Your task to perform on an android device: Open notification settings Image 0: 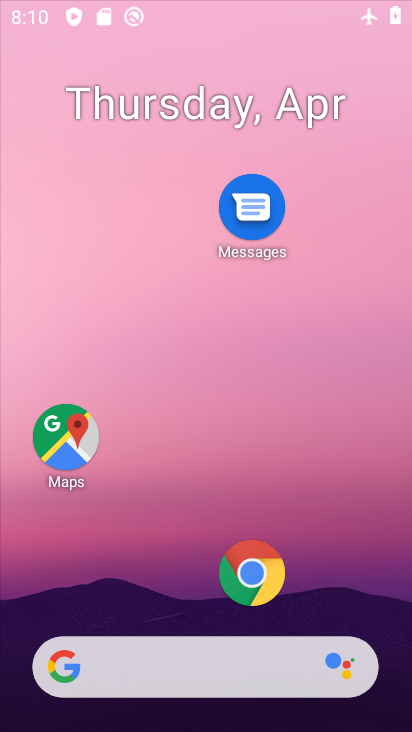
Step 0: click (216, 478)
Your task to perform on an android device: Open notification settings Image 1: 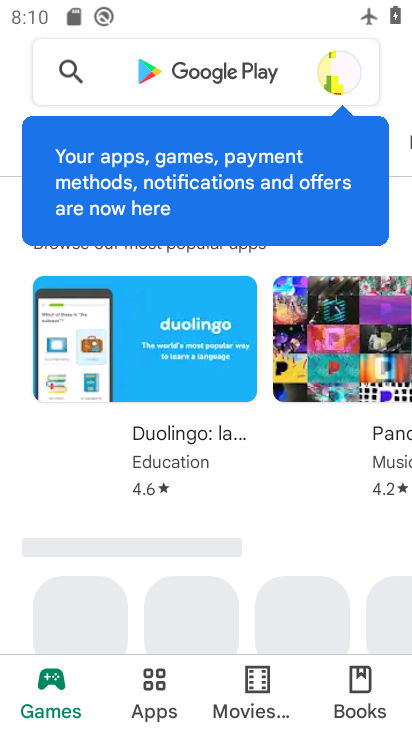
Step 1: press home button
Your task to perform on an android device: Open notification settings Image 2: 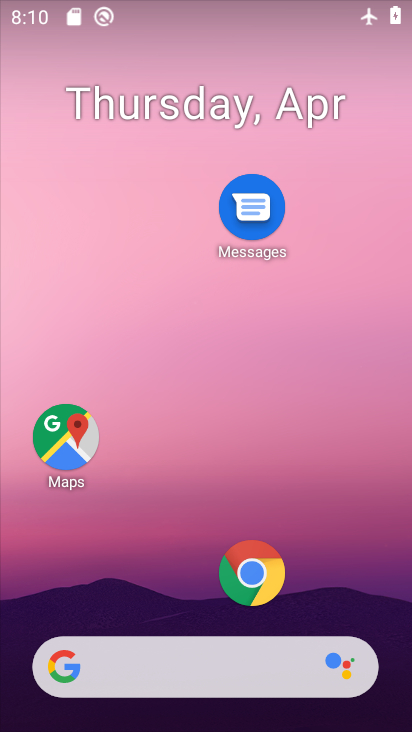
Step 2: drag from (220, 8) to (218, 506)
Your task to perform on an android device: Open notification settings Image 3: 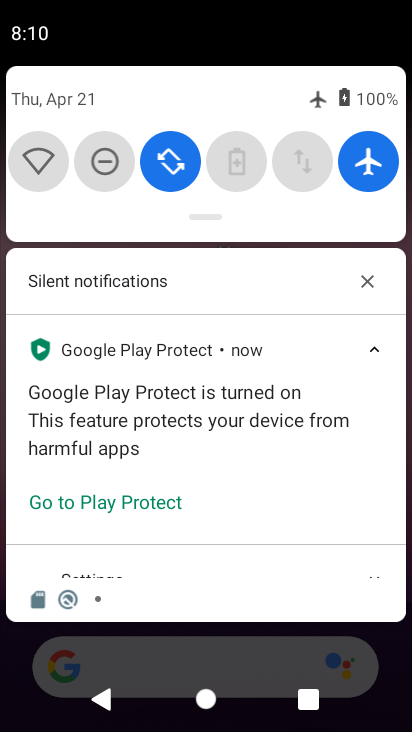
Step 3: drag from (230, 665) to (258, 357)
Your task to perform on an android device: Open notification settings Image 4: 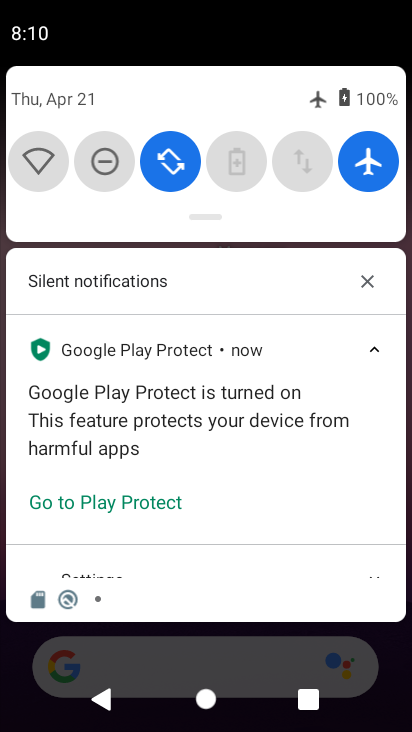
Step 4: press back button
Your task to perform on an android device: Open notification settings Image 5: 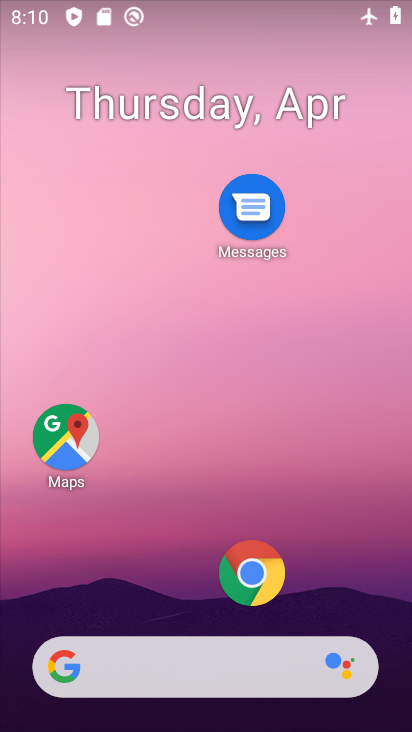
Step 5: drag from (197, 606) to (194, 70)
Your task to perform on an android device: Open notification settings Image 6: 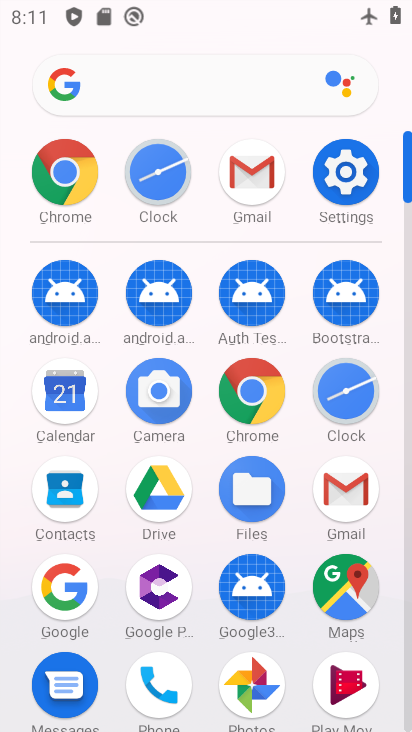
Step 6: click (351, 171)
Your task to perform on an android device: Open notification settings Image 7: 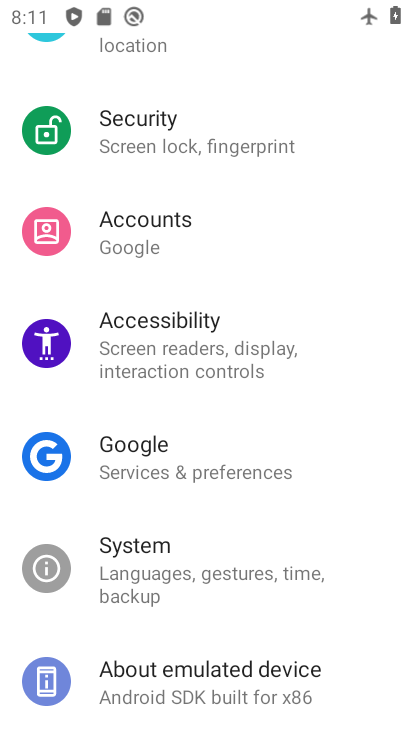
Step 7: drag from (215, 116) to (207, 648)
Your task to perform on an android device: Open notification settings Image 8: 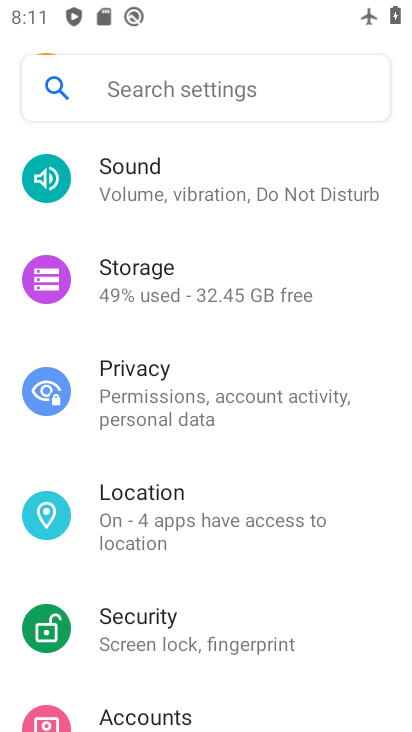
Step 8: drag from (199, 211) to (195, 679)
Your task to perform on an android device: Open notification settings Image 9: 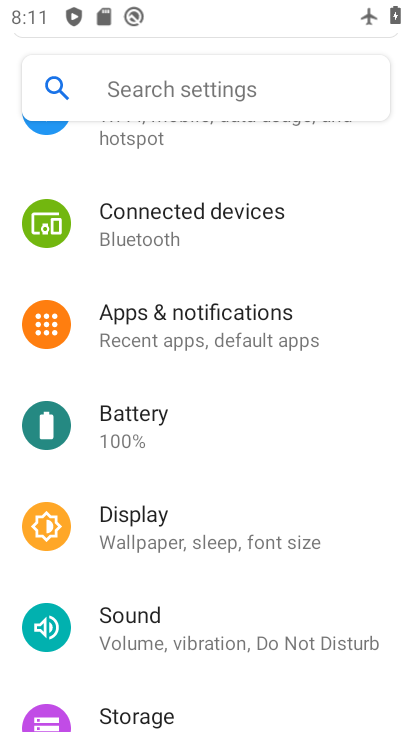
Step 9: click (216, 320)
Your task to perform on an android device: Open notification settings Image 10: 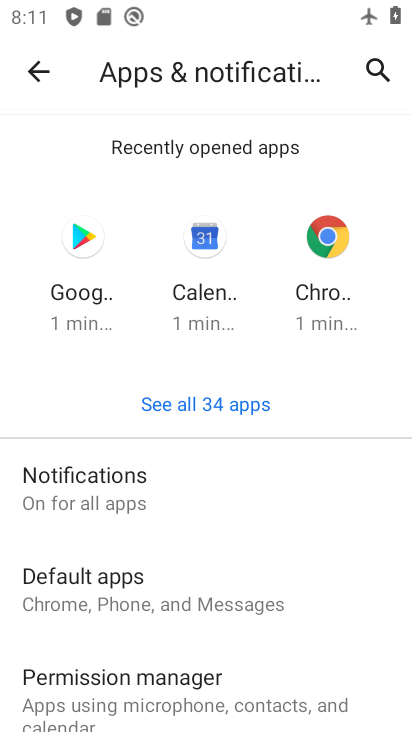
Step 10: click (167, 480)
Your task to perform on an android device: Open notification settings Image 11: 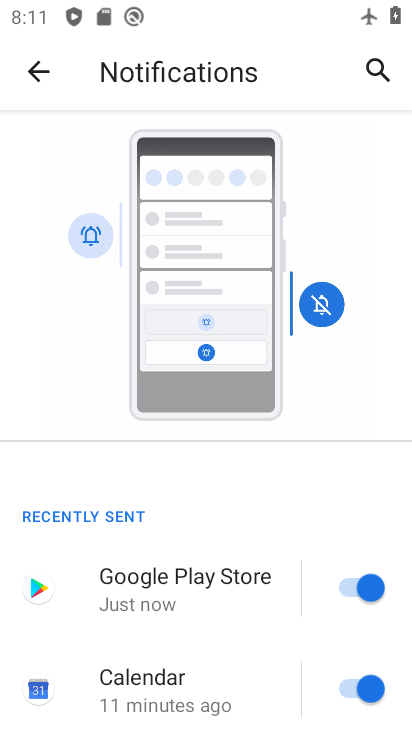
Step 11: click (353, 578)
Your task to perform on an android device: Open notification settings Image 12: 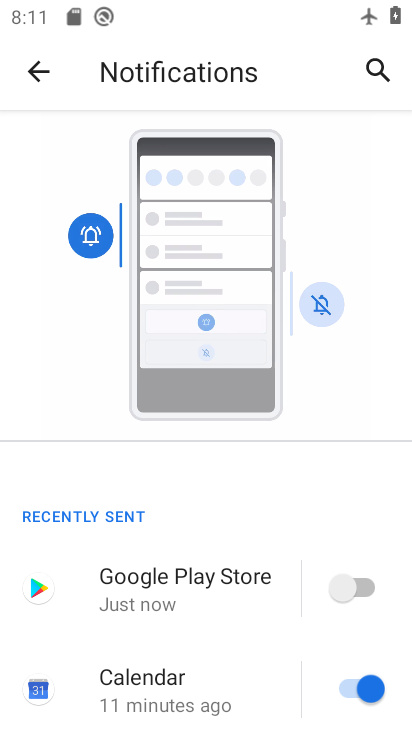
Step 12: click (352, 684)
Your task to perform on an android device: Open notification settings Image 13: 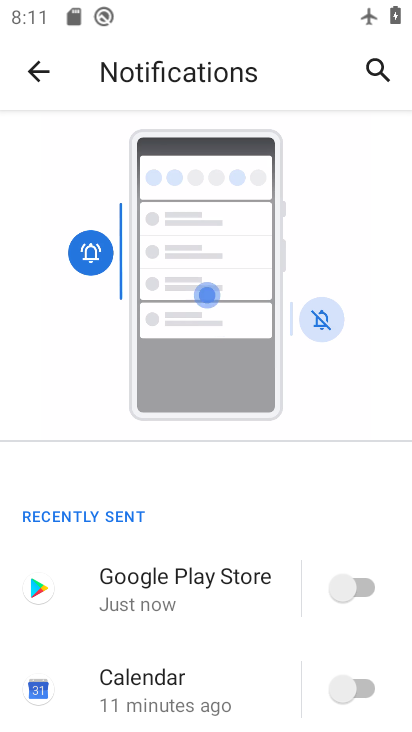
Step 13: drag from (251, 662) to (253, 238)
Your task to perform on an android device: Open notification settings Image 14: 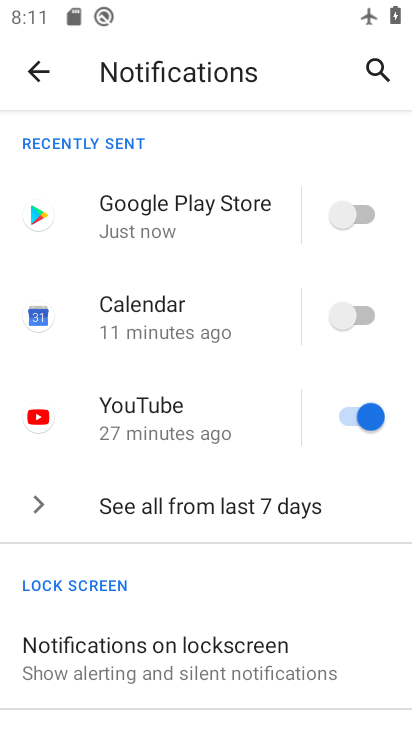
Step 14: click (344, 404)
Your task to perform on an android device: Open notification settings Image 15: 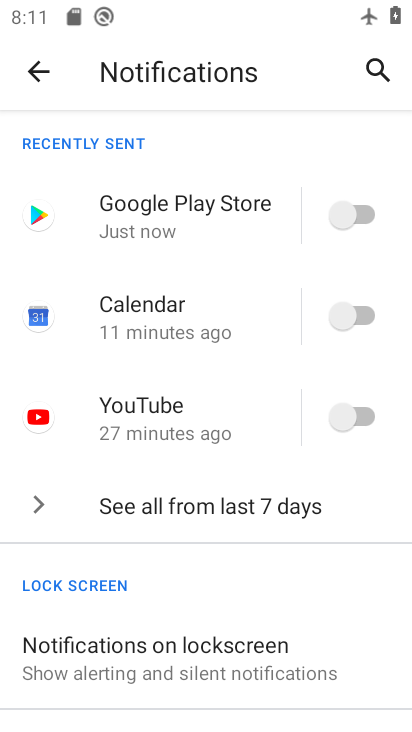
Step 15: click (290, 657)
Your task to perform on an android device: Open notification settings Image 16: 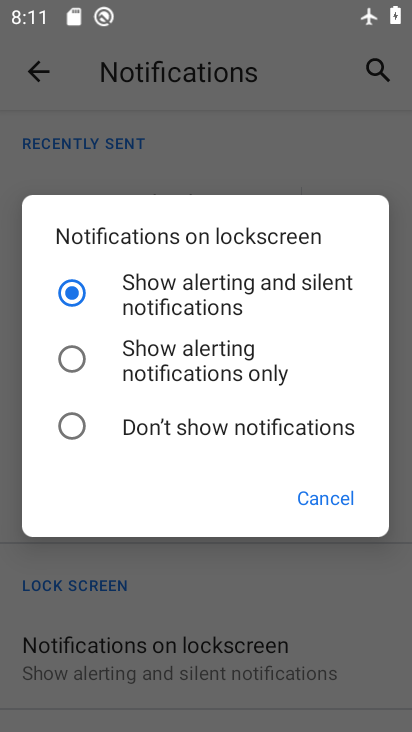
Step 16: click (78, 357)
Your task to perform on an android device: Open notification settings Image 17: 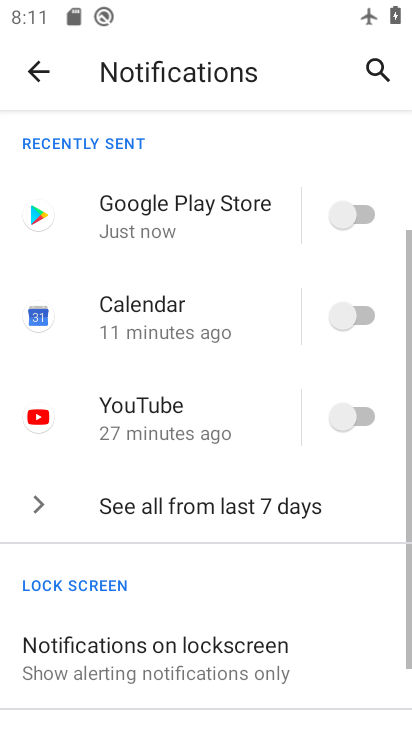
Step 17: drag from (208, 593) to (234, 168)
Your task to perform on an android device: Open notification settings Image 18: 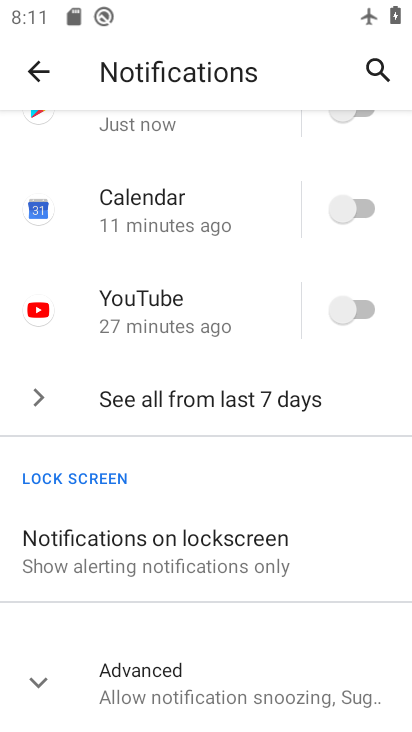
Step 18: click (41, 678)
Your task to perform on an android device: Open notification settings Image 19: 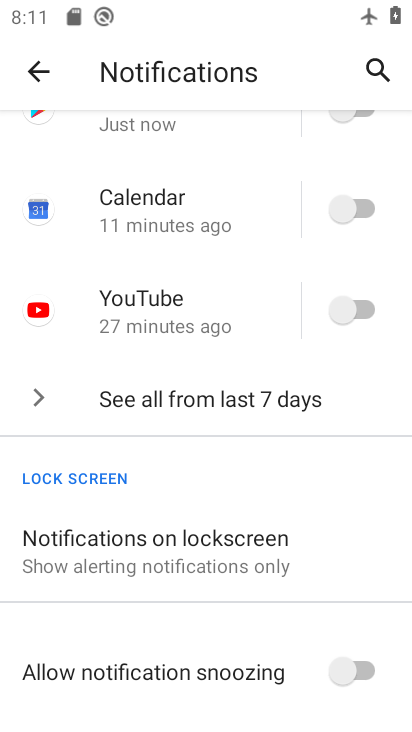
Step 19: drag from (203, 676) to (247, 159)
Your task to perform on an android device: Open notification settings Image 20: 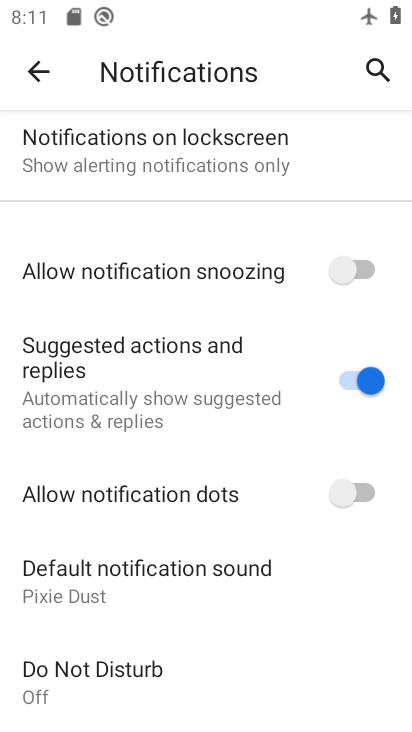
Step 20: click (344, 257)
Your task to perform on an android device: Open notification settings Image 21: 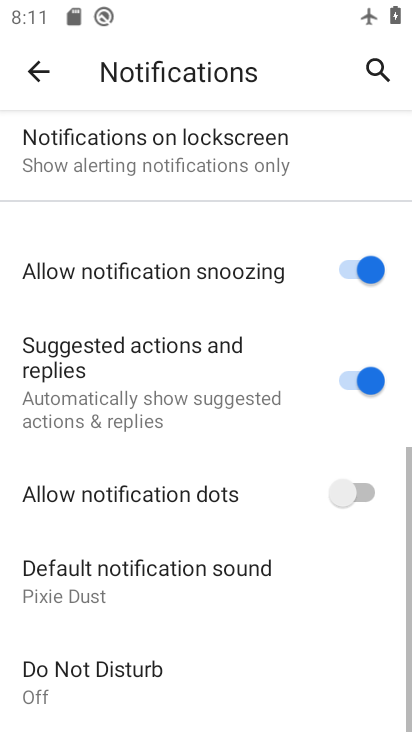
Step 21: task complete